Your task to perform on an android device: Go to Wikipedia Image 0: 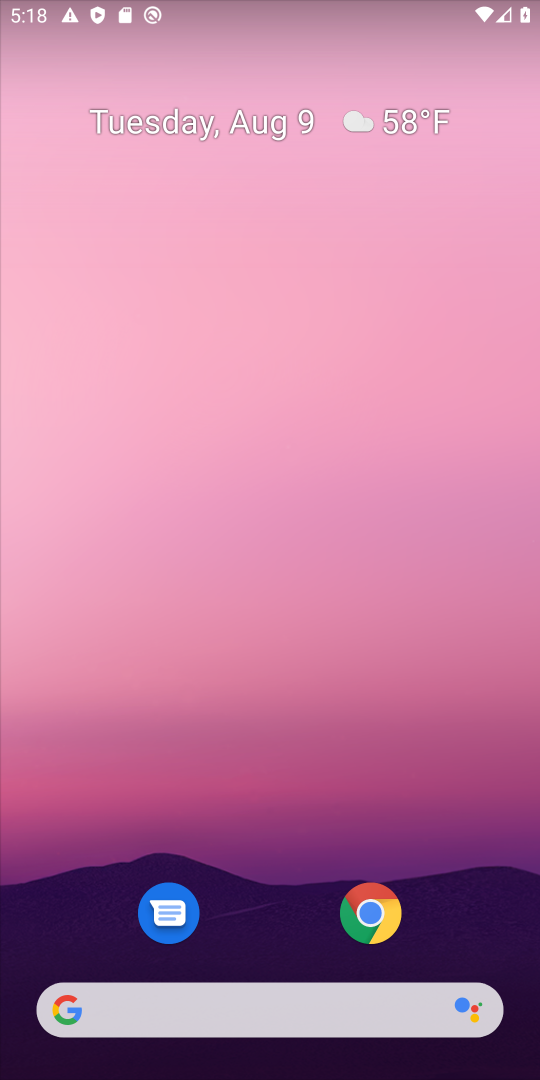
Step 0: click (371, 915)
Your task to perform on an android device: Go to Wikipedia Image 1: 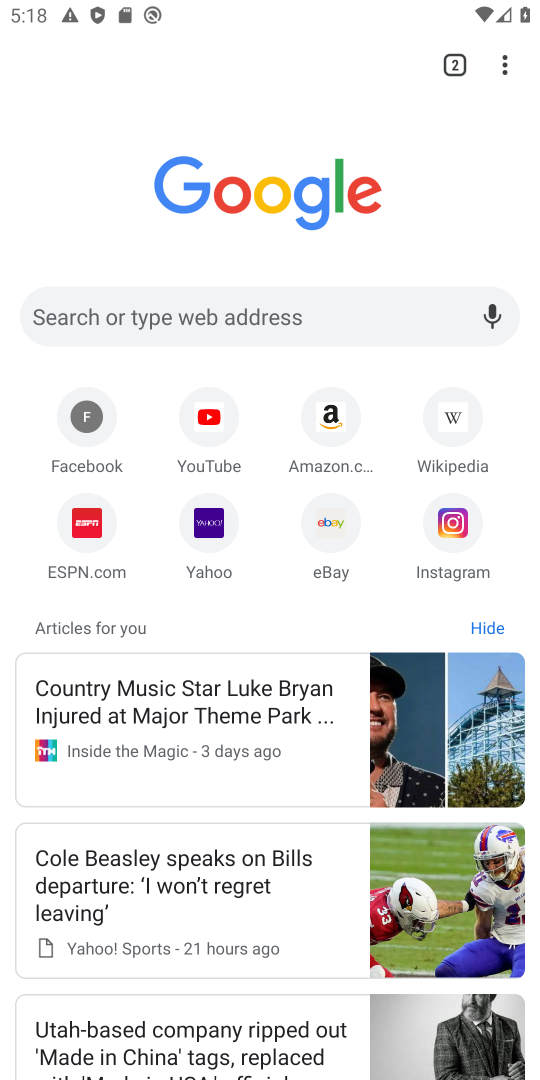
Step 1: click (452, 427)
Your task to perform on an android device: Go to Wikipedia Image 2: 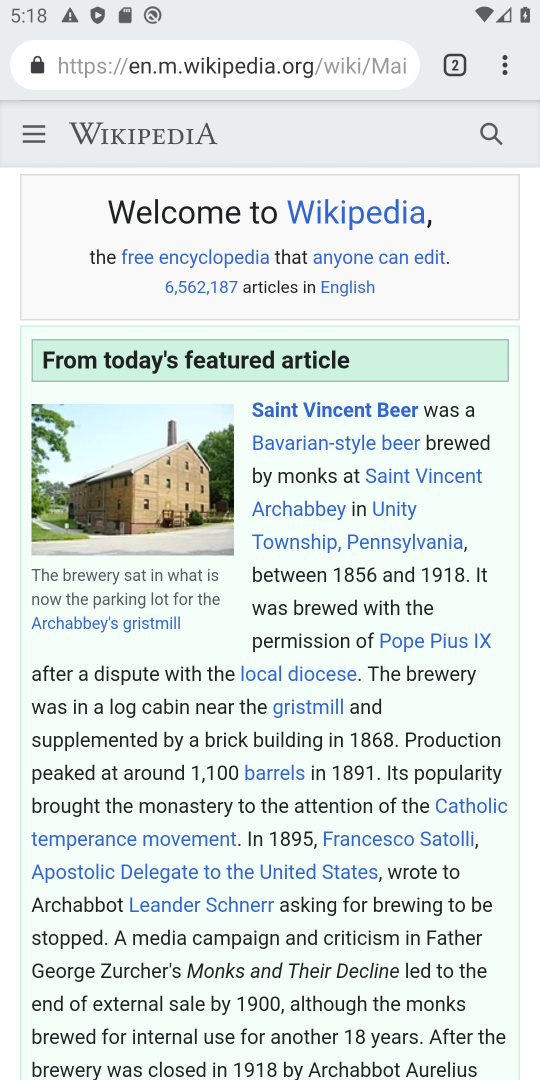
Step 2: task complete